Your task to perform on an android device: turn notification dots off Image 0: 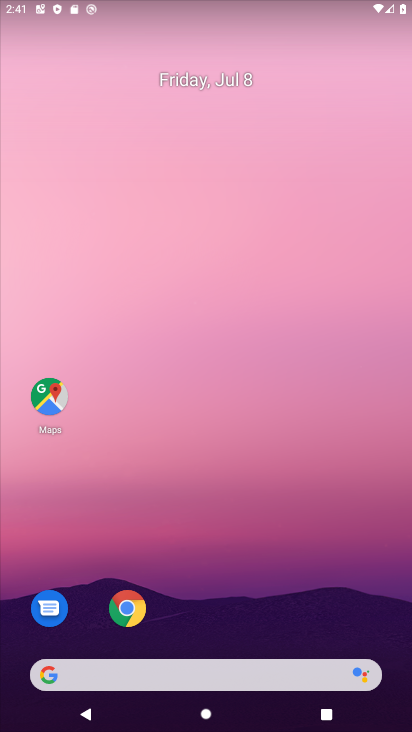
Step 0: drag from (225, 692) to (250, 110)
Your task to perform on an android device: turn notification dots off Image 1: 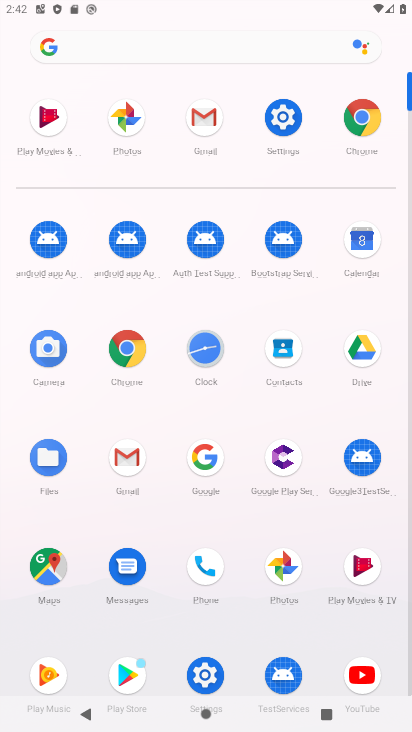
Step 1: click (293, 114)
Your task to perform on an android device: turn notification dots off Image 2: 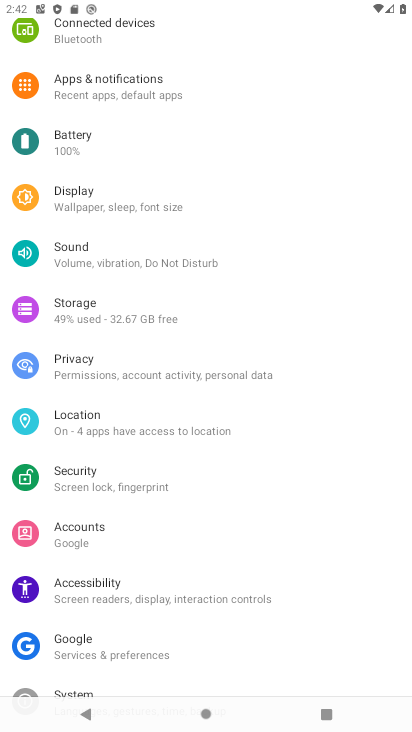
Step 2: click (142, 102)
Your task to perform on an android device: turn notification dots off Image 3: 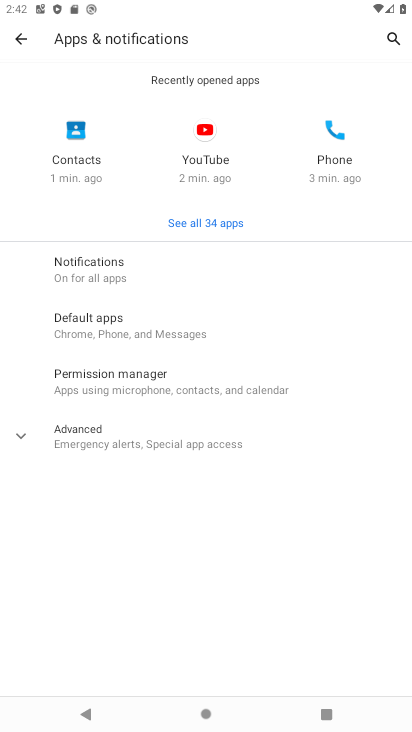
Step 3: click (125, 269)
Your task to perform on an android device: turn notification dots off Image 4: 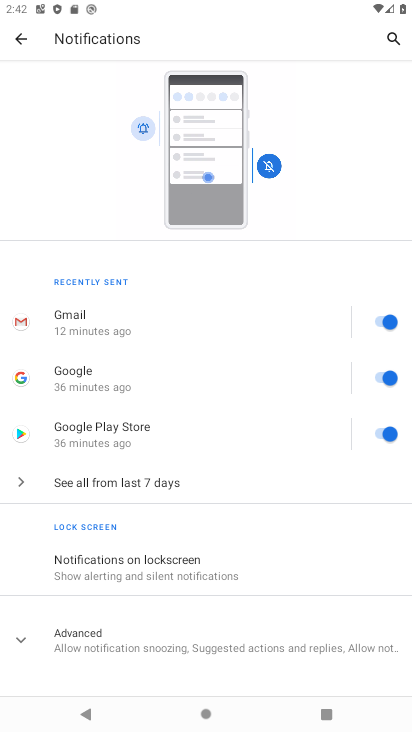
Step 4: drag from (237, 633) to (232, 373)
Your task to perform on an android device: turn notification dots off Image 5: 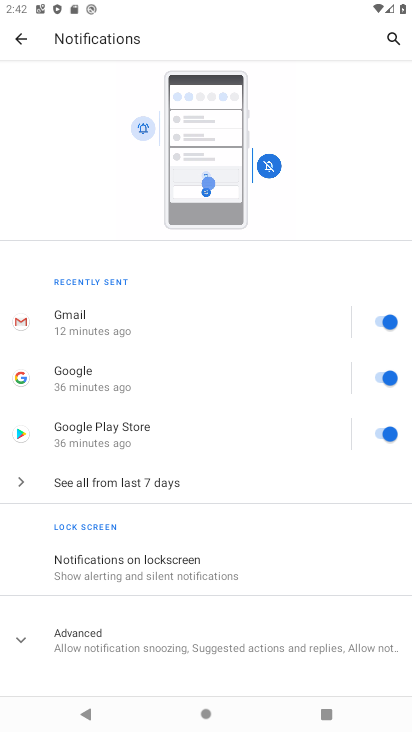
Step 5: click (230, 639)
Your task to perform on an android device: turn notification dots off Image 6: 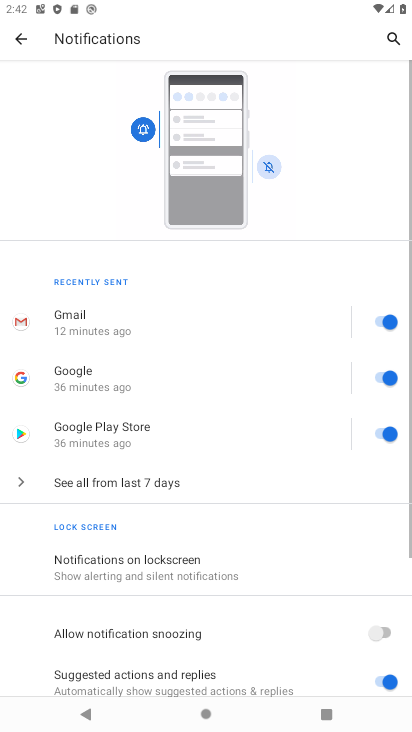
Step 6: drag from (207, 592) to (211, 250)
Your task to perform on an android device: turn notification dots off Image 7: 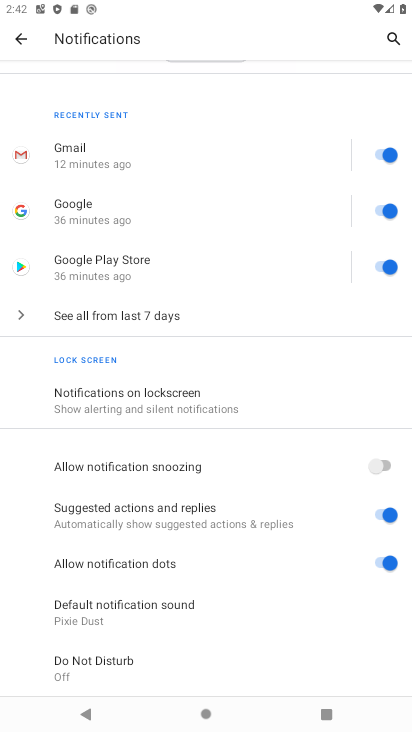
Step 7: click (385, 560)
Your task to perform on an android device: turn notification dots off Image 8: 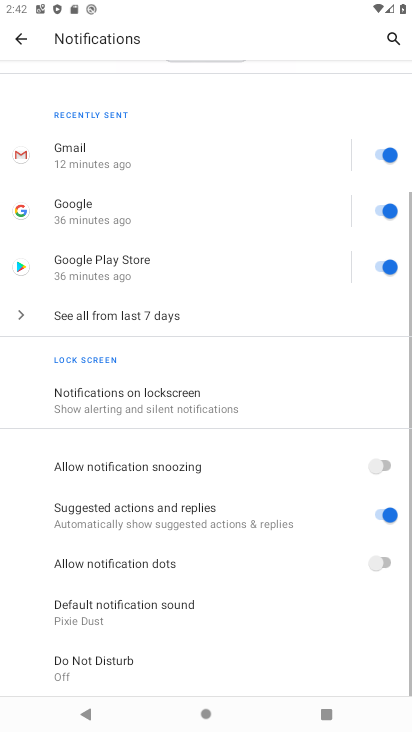
Step 8: task complete